Your task to perform on an android device: Open notification settings Image 0: 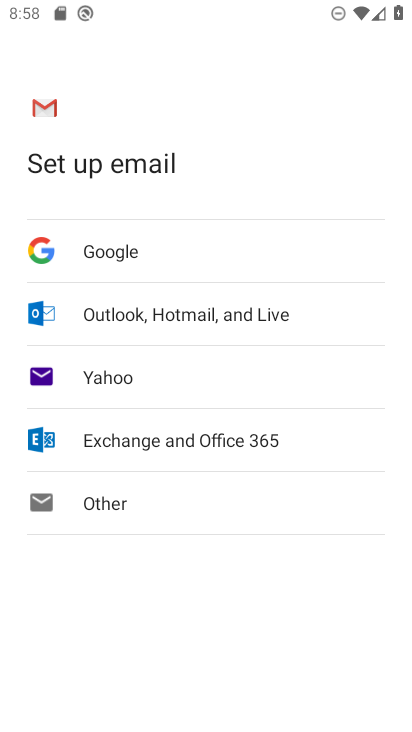
Step 0: press home button
Your task to perform on an android device: Open notification settings Image 1: 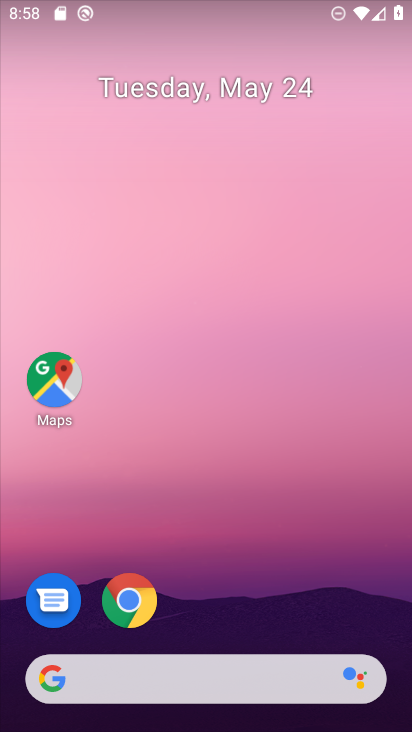
Step 1: drag from (248, 605) to (202, 109)
Your task to perform on an android device: Open notification settings Image 2: 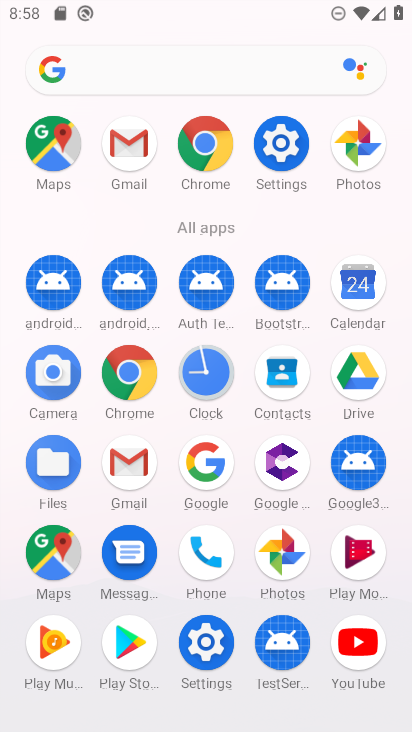
Step 2: click (295, 153)
Your task to perform on an android device: Open notification settings Image 3: 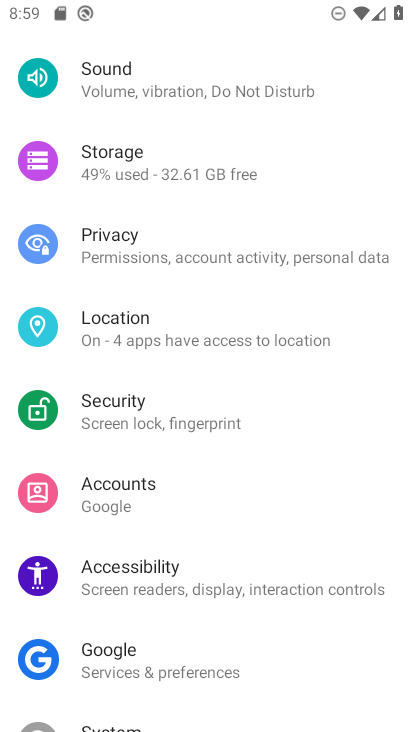
Step 3: drag from (241, 261) to (210, 645)
Your task to perform on an android device: Open notification settings Image 4: 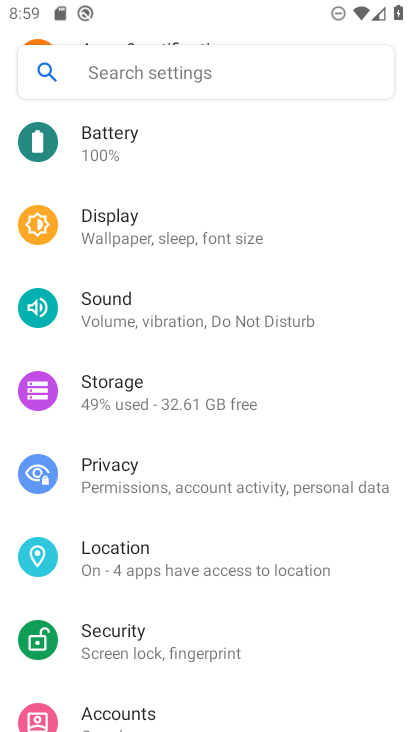
Step 4: drag from (128, 318) to (129, 668)
Your task to perform on an android device: Open notification settings Image 5: 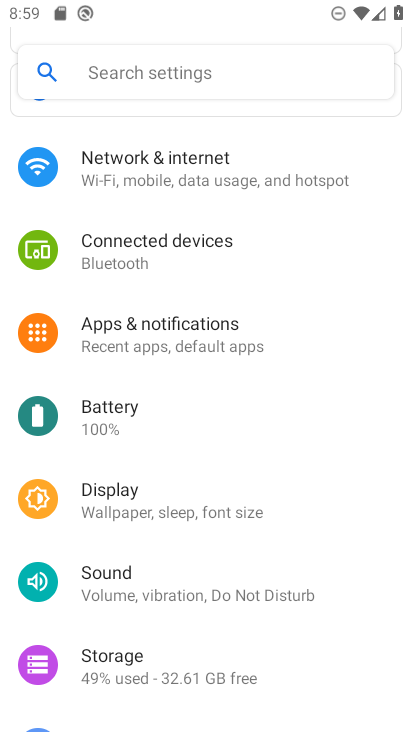
Step 5: click (144, 312)
Your task to perform on an android device: Open notification settings Image 6: 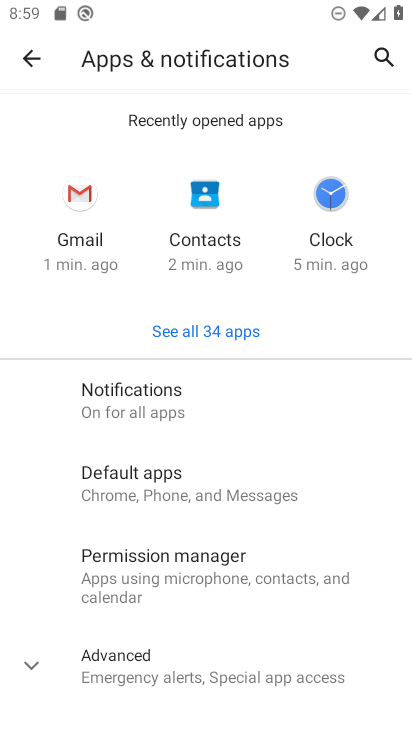
Step 6: task complete